Your task to perform on an android device: Open Chrome and go to the settings page Image 0: 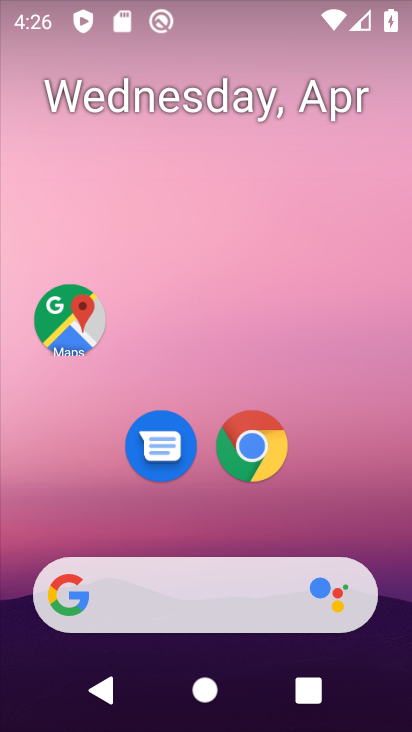
Step 0: click (263, 455)
Your task to perform on an android device: Open Chrome and go to the settings page Image 1: 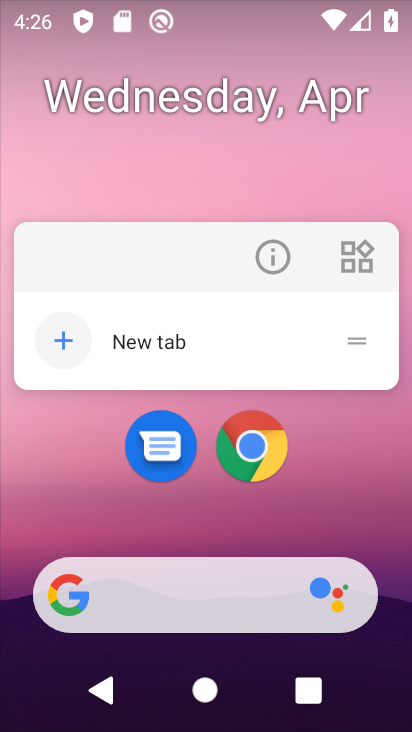
Step 1: click (263, 455)
Your task to perform on an android device: Open Chrome and go to the settings page Image 2: 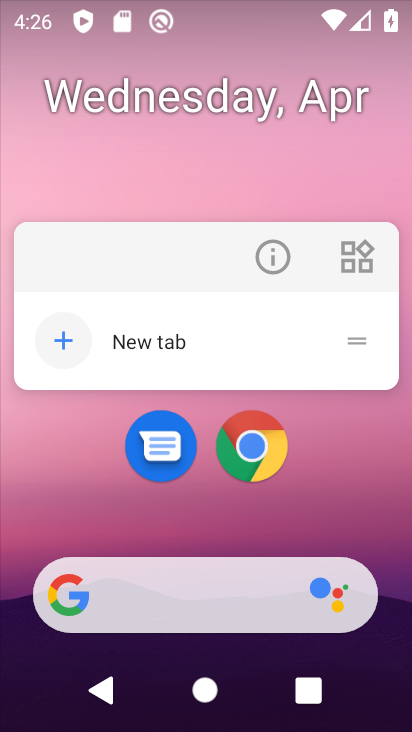
Step 2: click (254, 452)
Your task to perform on an android device: Open Chrome and go to the settings page Image 3: 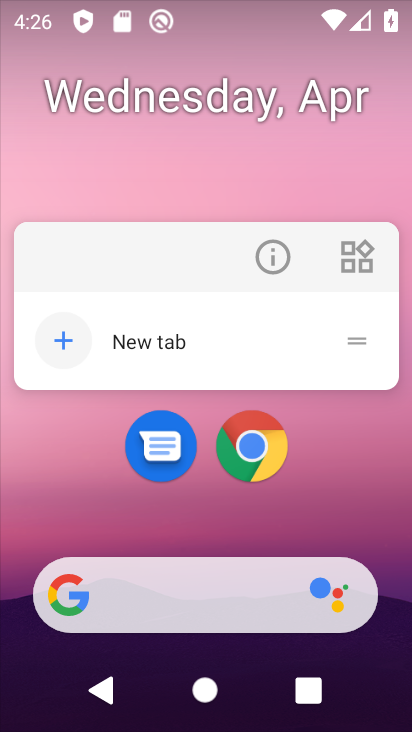
Step 3: click (251, 448)
Your task to perform on an android device: Open Chrome and go to the settings page Image 4: 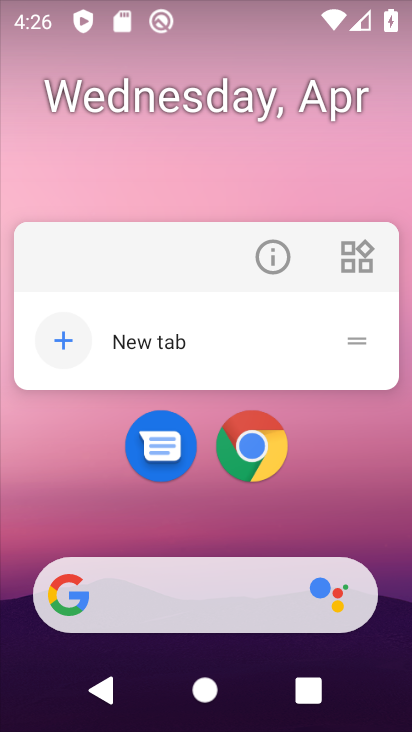
Step 4: click (252, 452)
Your task to perform on an android device: Open Chrome and go to the settings page Image 5: 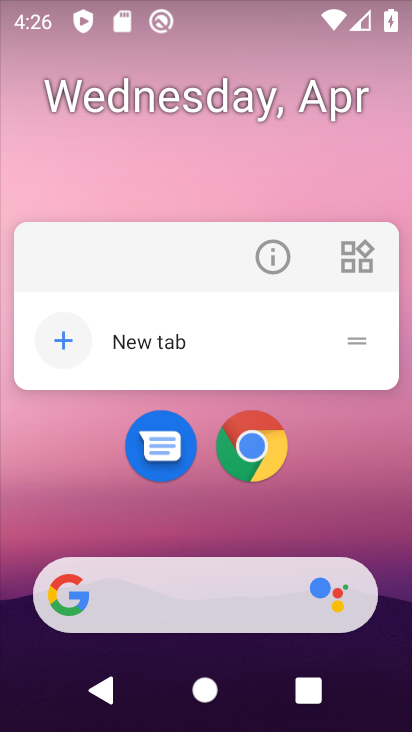
Step 5: click (265, 454)
Your task to perform on an android device: Open Chrome and go to the settings page Image 6: 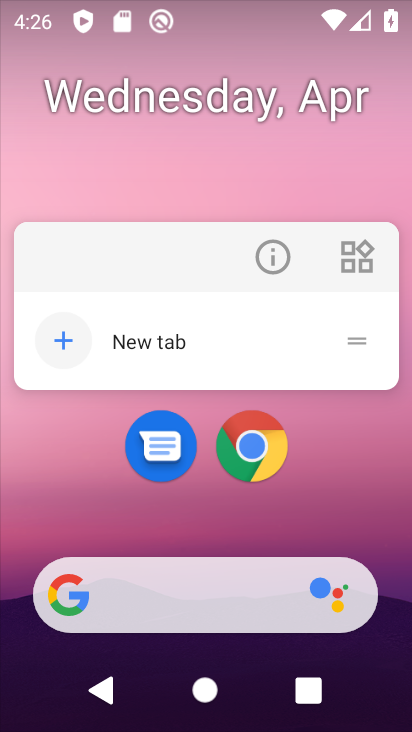
Step 6: click (265, 453)
Your task to perform on an android device: Open Chrome and go to the settings page Image 7: 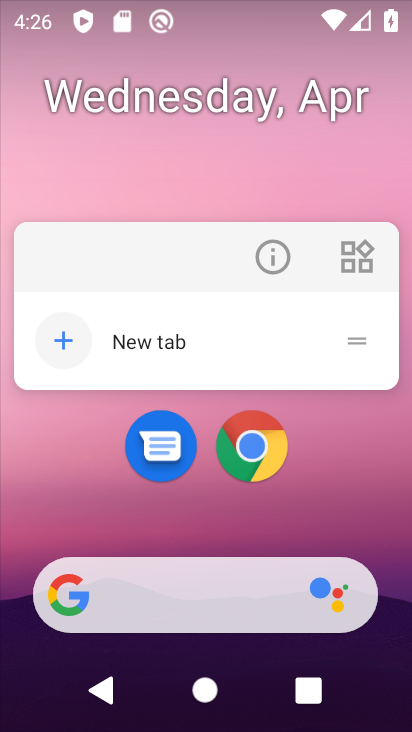
Step 7: click (264, 465)
Your task to perform on an android device: Open Chrome and go to the settings page Image 8: 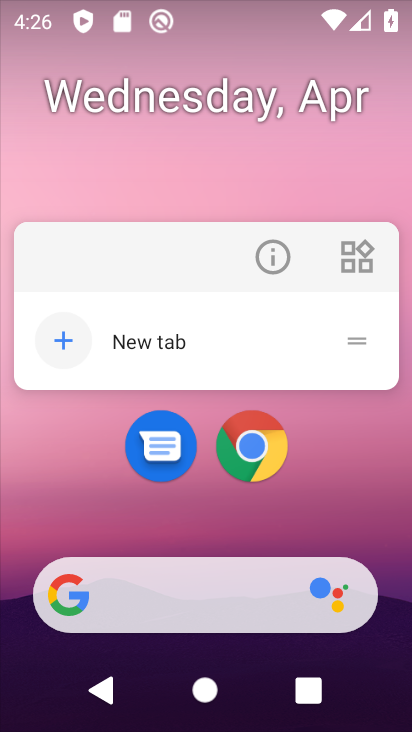
Step 8: click (260, 454)
Your task to perform on an android device: Open Chrome and go to the settings page Image 9: 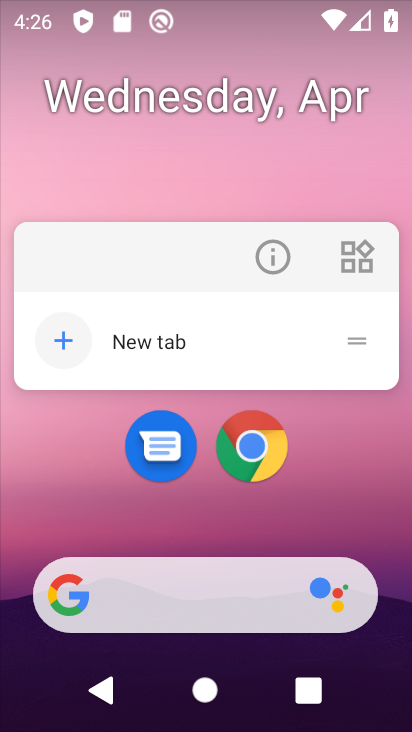
Step 9: click (254, 428)
Your task to perform on an android device: Open Chrome and go to the settings page Image 10: 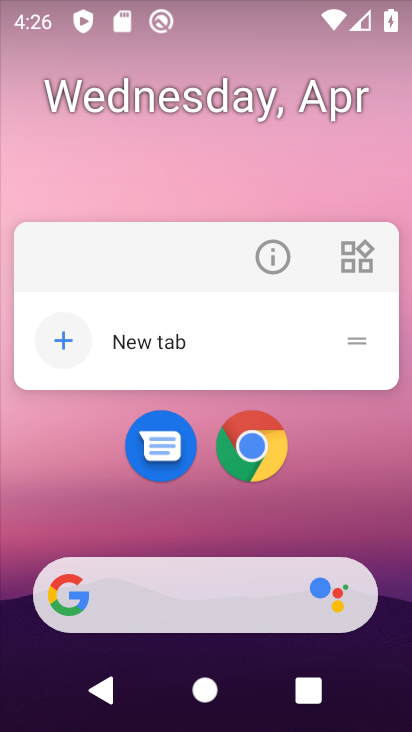
Step 10: click (245, 439)
Your task to perform on an android device: Open Chrome and go to the settings page Image 11: 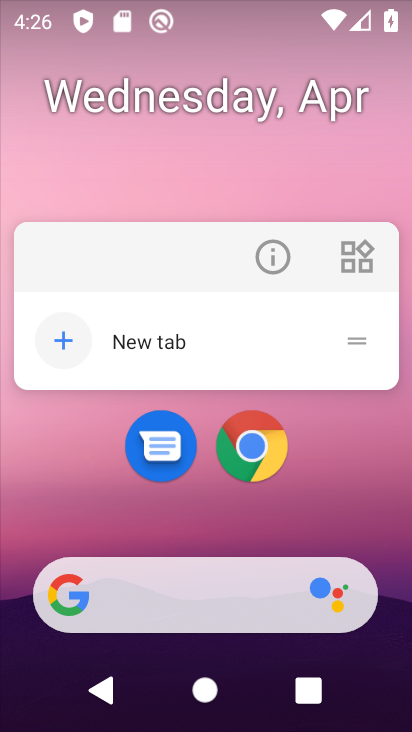
Step 11: click (282, 451)
Your task to perform on an android device: Open Chrome and go to the settings page Image 12: 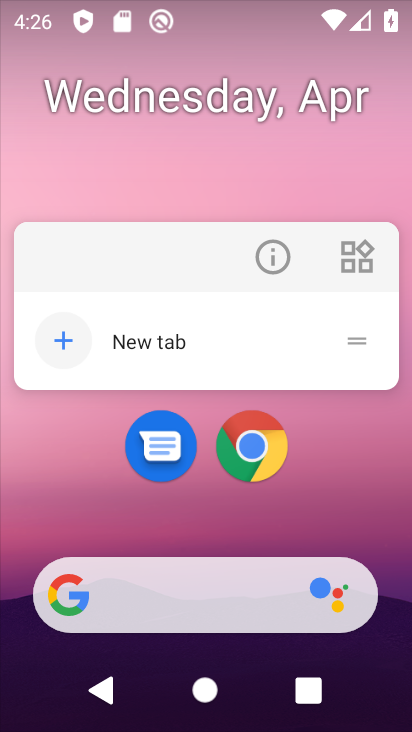
Step 12: drag from (298, 559) to (407, 423)
Your task to perform on an android device: Open Chrome and go to the settings page Image 13: 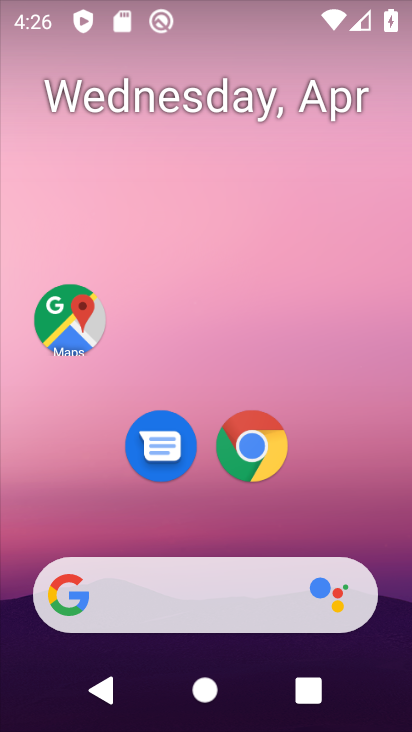
Step 13: click (238, 444)
Your task to perform on an android device: Open Chrome and go to the settings page Image 14: 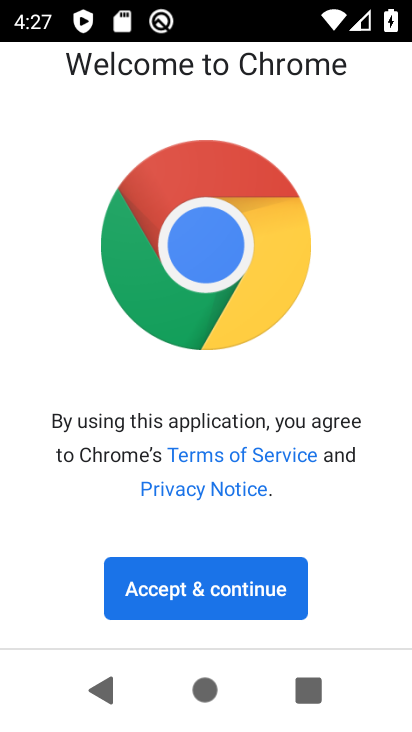
Step 14: click (185, 579)
Your task to perform on an android device: Open Chrome and go to the settings page Image 15: 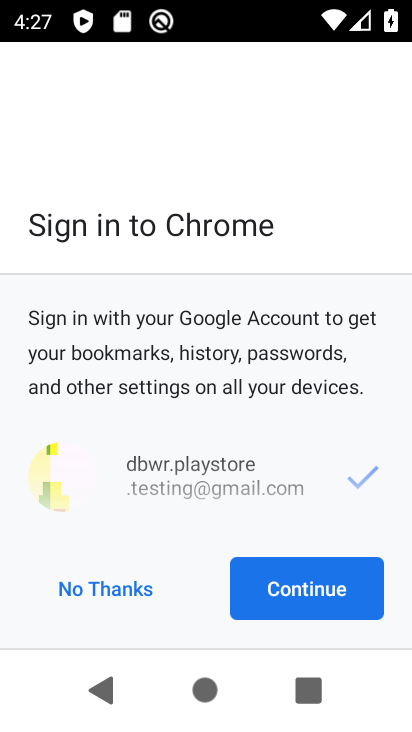
Step 15: click (303, 615)
Your task to perform on an android device: Open Chrome and go to the settings page Image 16: 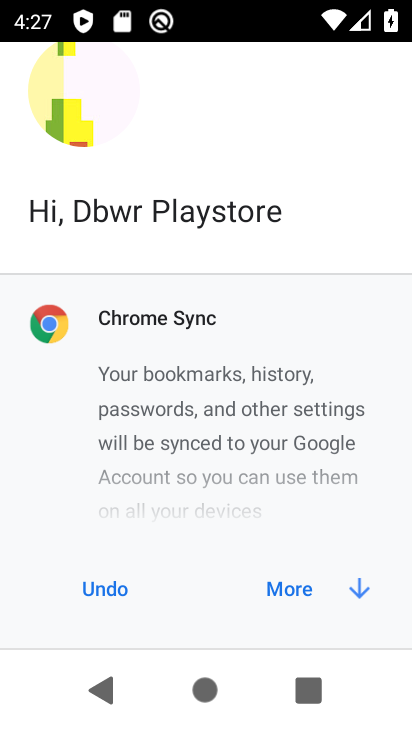
Step 16: click (310, 580)
Your task to perform on an android device: Open Chrome and go to the settings page Image 17: 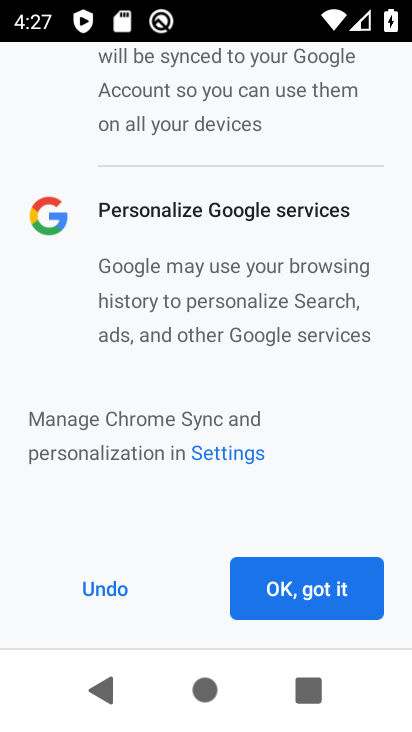
Step 17: click (323, 593)
Your task to perform on an android device: Open Chrome and go to the settings page Image 18: 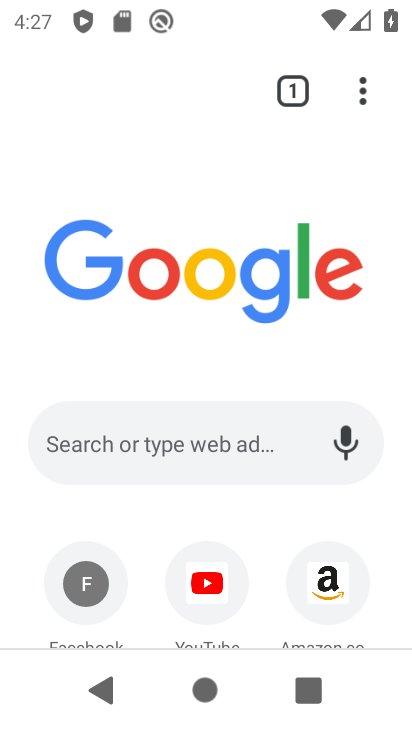
Step 18: task complete